Your task to perform on an android device: Find coffee shops on Maps Image 0: 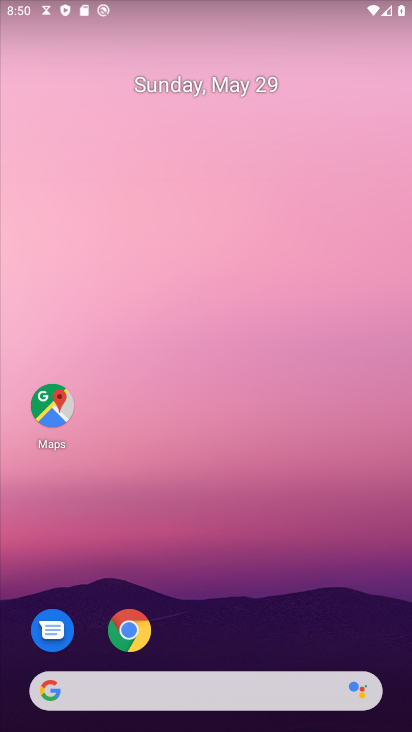
Step 0: click (57, 404)
Your task to perform on an android device: Find coffee shops on Maps Image 1: 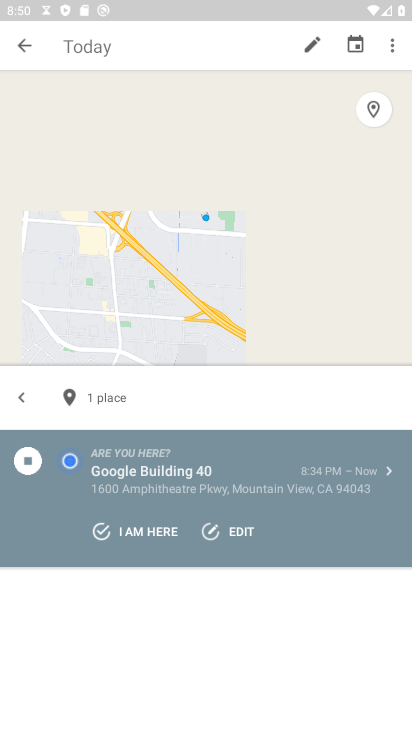
Step 1: click (28, 45)
Your task to perform on an android device: Find coffee shops on Maps Image 2: 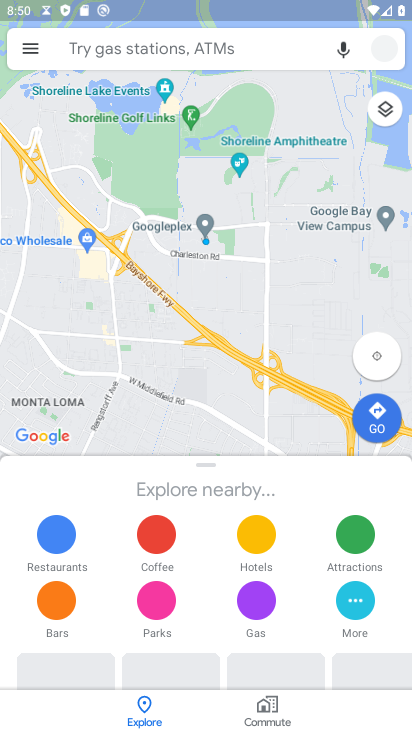
Step 2: click (145, 44)
Your task to perform on an android device: Find coffee shops on Maps Image 3: 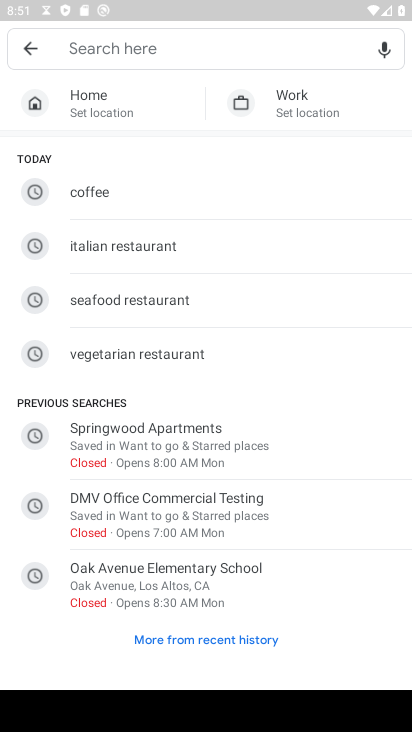
Step 3: type "coffee shops"
Your task to perform on an android device: Find coffee shops on Maps Image 4: 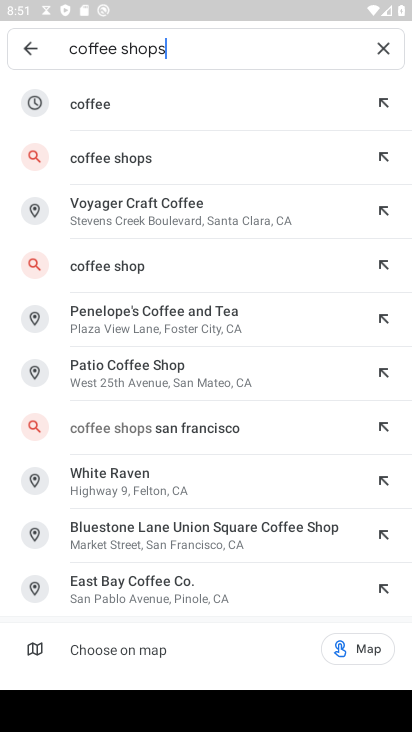
Step 4: click (155, 150)
Your task to perform on an android device: Find coffee shops on Maps Image 5: 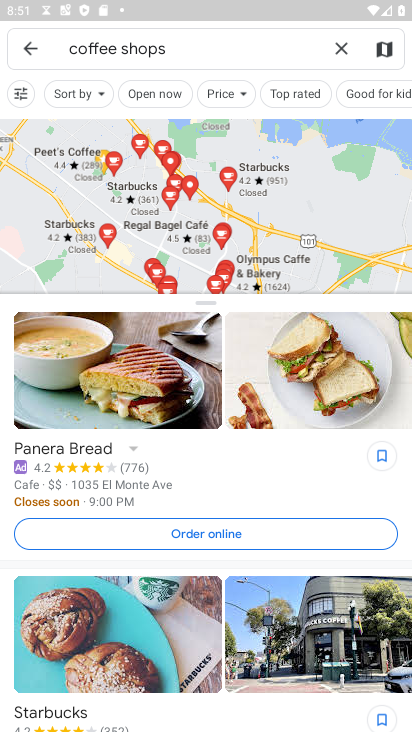
Step 5: task complete